Your task to perform on an android device: Open the calendar app, open the side menu, and click the "Day" option Image 0: 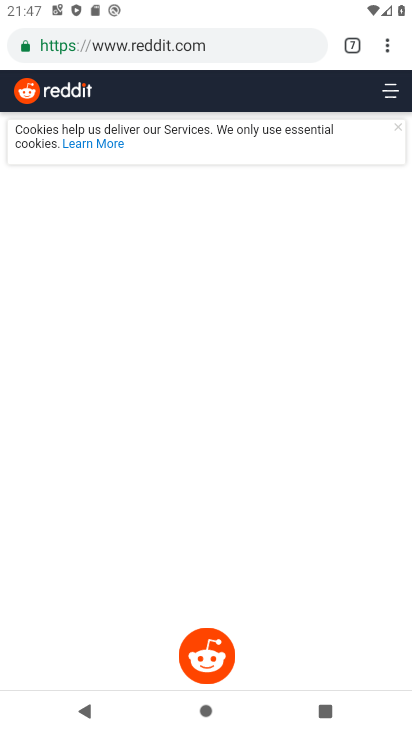
Step 0: press home button
Your task to perform on an android device: Open the calendar app, open the side menu, and click the "Day" option Image 1: 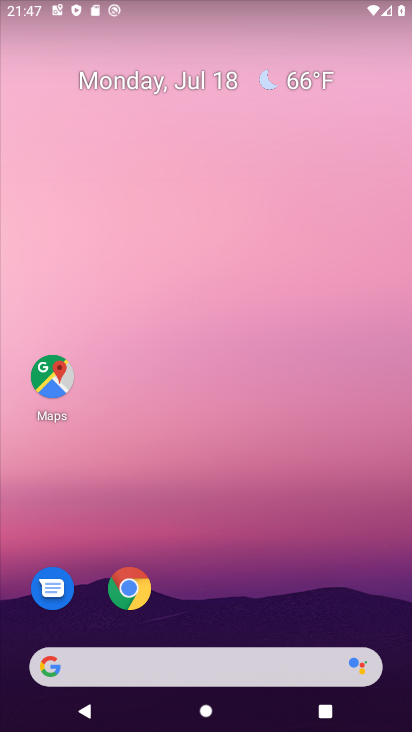
Step 1: drag from (176, 659) to (326, 197)
Your task to perform on an android device: Open the calendar app, open the side menu, and click the "Day" option Image 2: 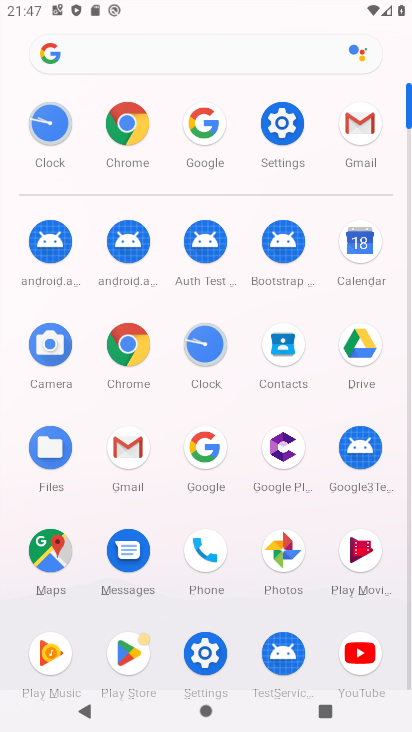
Step 2: click (368, 248)
Your task to perform on an android device: Open the calendar app, open the side menu, and click the "Day" option Image 3: 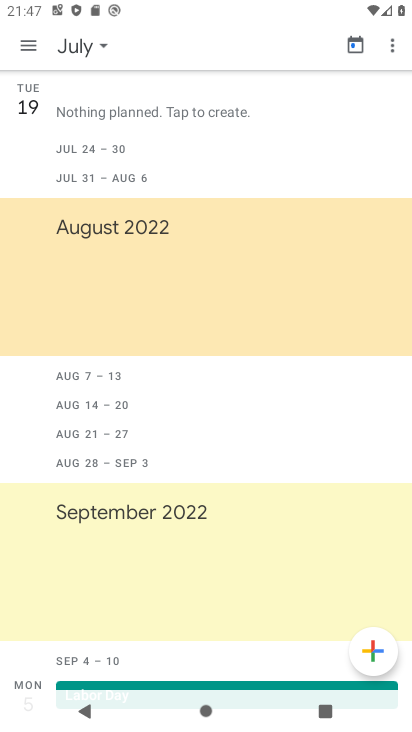
Step 3: click (29, 44)
Your task to perform on an android device: Open the calendar app, open the side menu, and click the "Day" option Image 4: 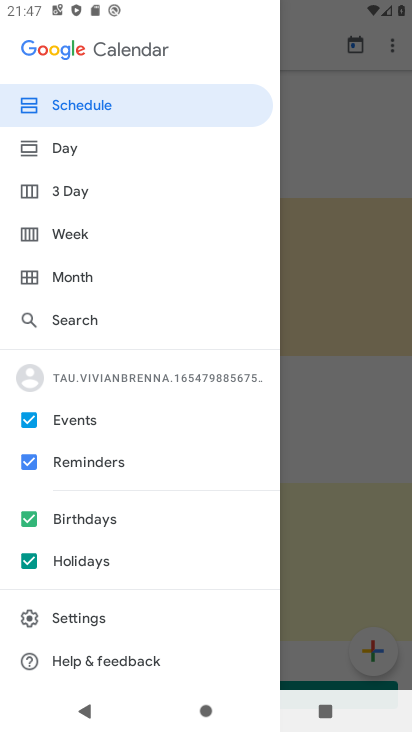
Step 4: click (59, 147)
Your task to perform on an android device: Open the calendar app, open the side menu, and click the "Day" option Image 5: 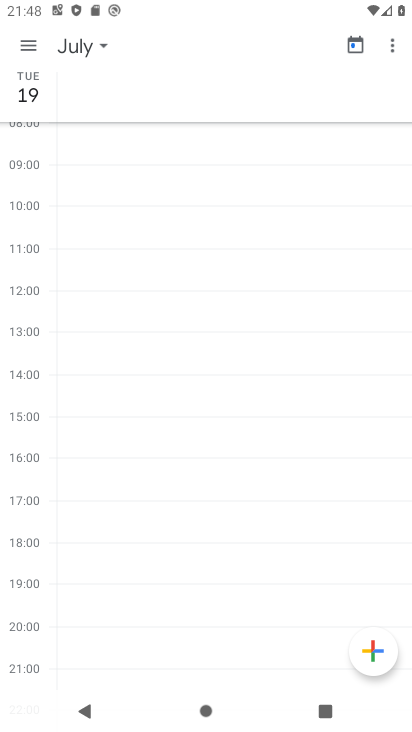
Step 5: task complete